Your task to perform on an android device: Search for vegetarian restaurants on Maps Image 0: 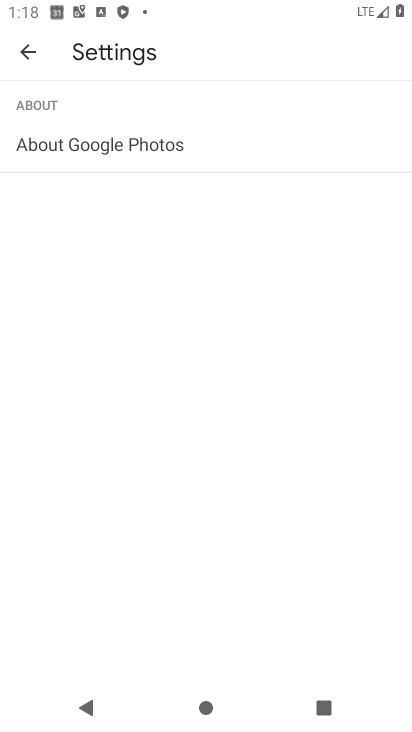
Step 0: press home button
Your task to perform on an android device: Search for vegetarian restaurants on Maps Image 1: 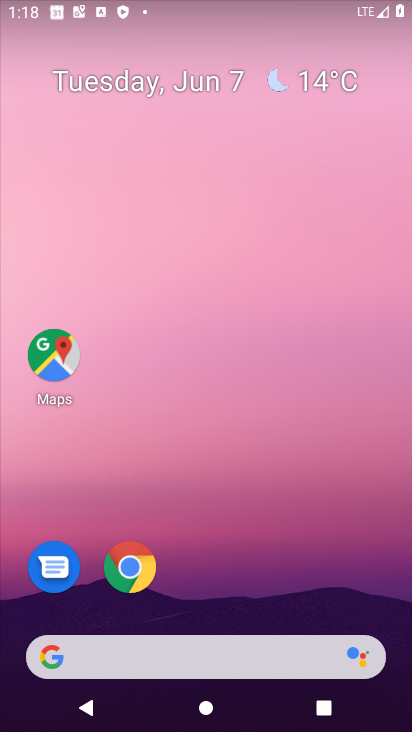
Step 1: drag from (271, 631) to (309, 1)
Your task to perform on an android device: Search for vegetarian restaurants on Maps Image 2: 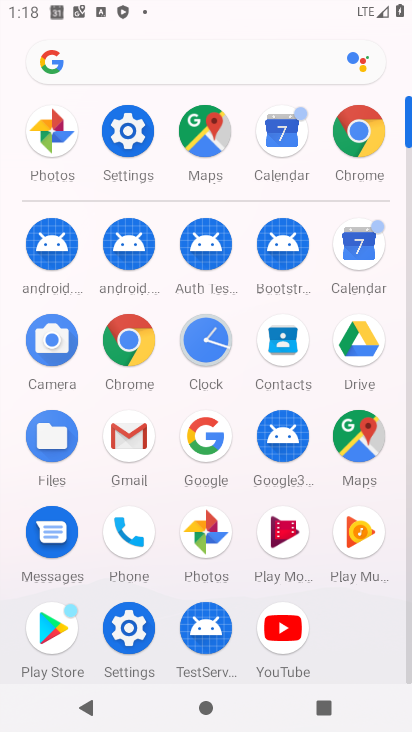
Step 2: click (355, 438)
Your task to perform on an android device: Search for vegetarian restaurants on Maps Image 3: 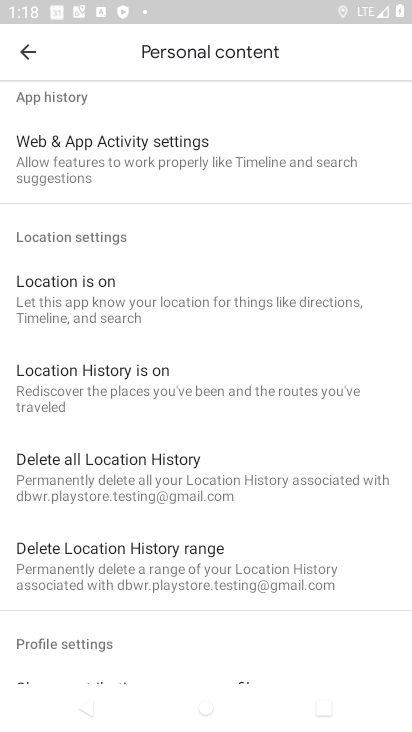
Step 3: press back button
Your task to perform on an android device: Search for vegetarian restaurants on Maps Image 4: 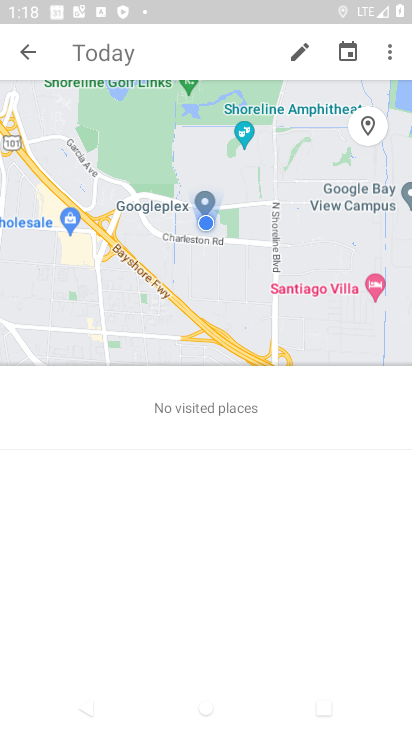
Step 4: press back button
Your task to perform on an android device: Search for vegetarian restaurants on Maps Image 5: 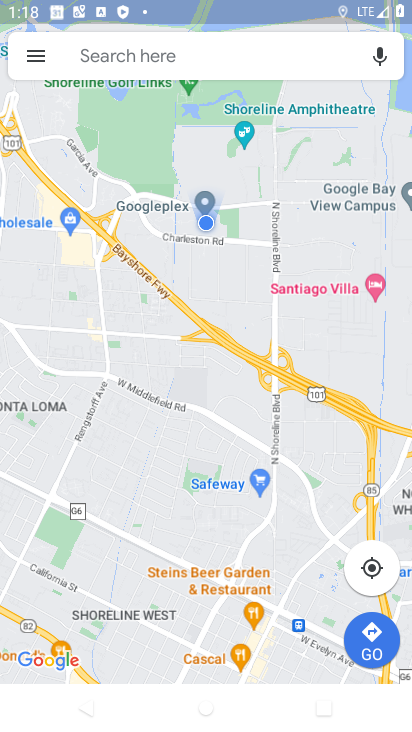
Step 5: click (167, 60)
Your task to perform on an android device: Search for vegetarian restaurants on Maps Image 6: 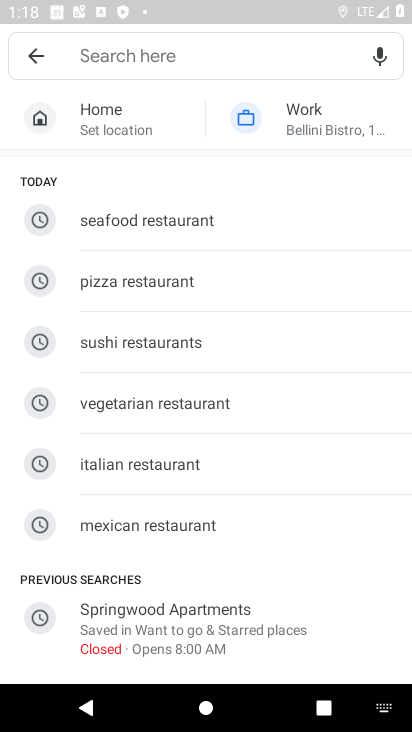
Step 6: click (185, 401)
Your task to perform on an android device: Search for vegetarian restaurants on Maps Image 7: 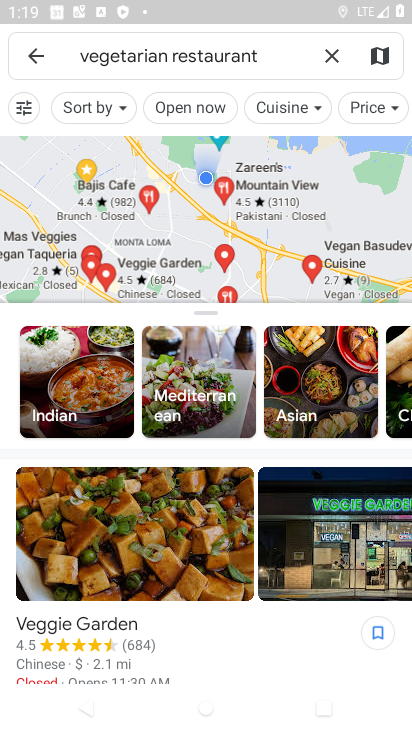
Step 7: task complete